Your task to perform on an android device: turn off picture-in-picture Image 0: 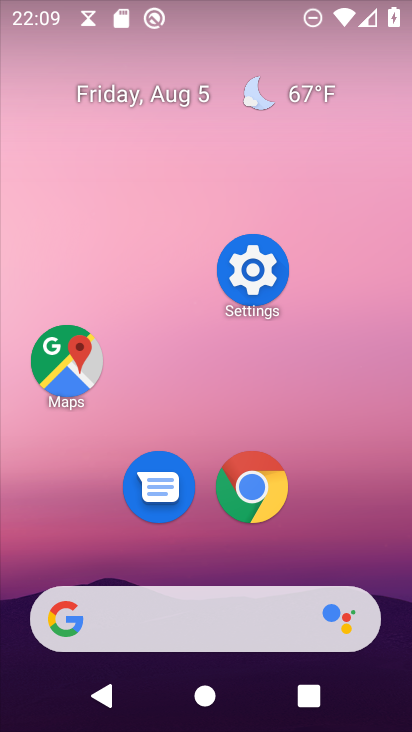
Step 0: click (252, 483)
Your task to perform on an android device: turn off picture-in-picture Image 1: 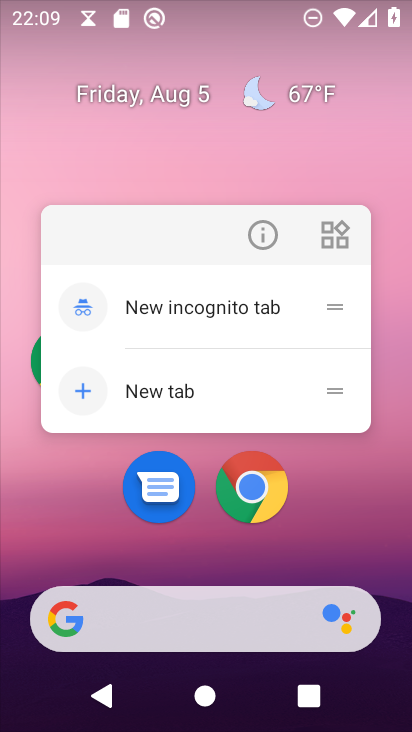
Step 1: click (268, 235)
Your task to perform on an android device: turn off picture-in-picture Image 2: 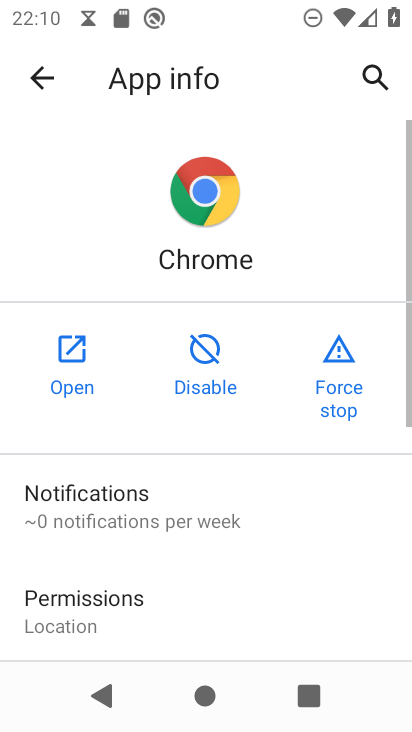
Step 2: drag from (242, 607) to (305, 83)
Your task to perform on an android device: turn off picture-in-picture Image 3: 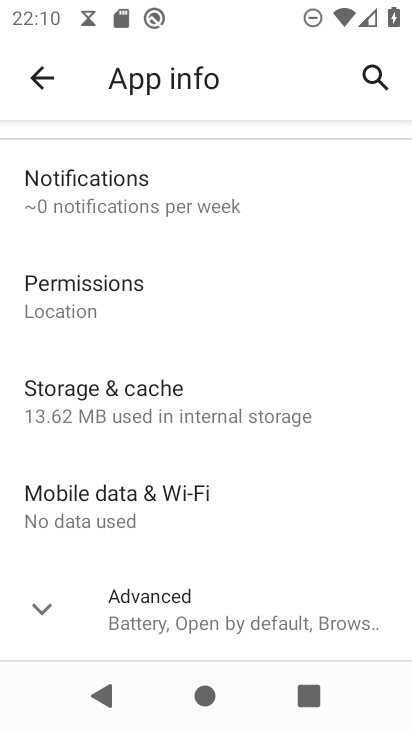
Step 3: drag from (224, 577) to (341, 42)
Your task to perform on an android device: turn off picture-in-picture Image 4: 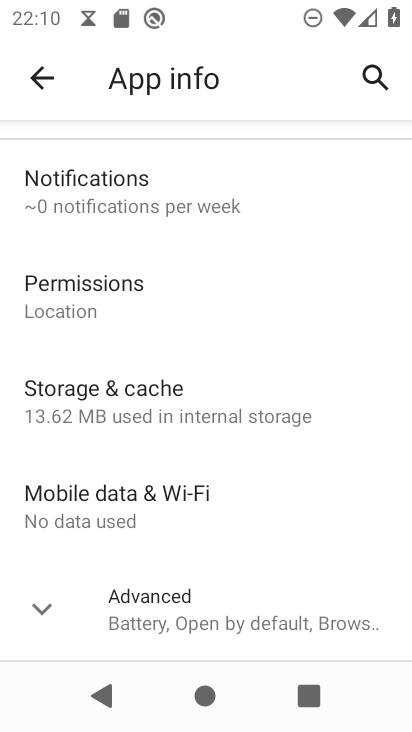
Step 4: click (145, 608)
Your task to perform on an android device: turn off picture-in-picture Image 5: 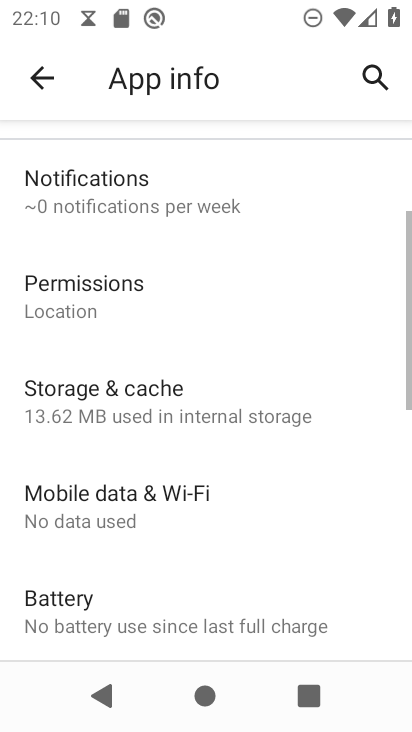
Step 5: drag from (246, 583) to (350, 37)
Your task to perform on an android device: turn off picture-in-picture Image 6: 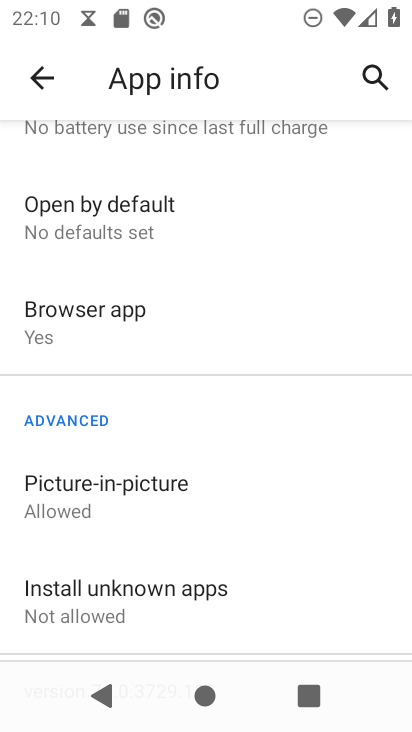
Step 6: click (106, 493)
Your task to perform on an android device: turn off picture-in-picture Image 7: 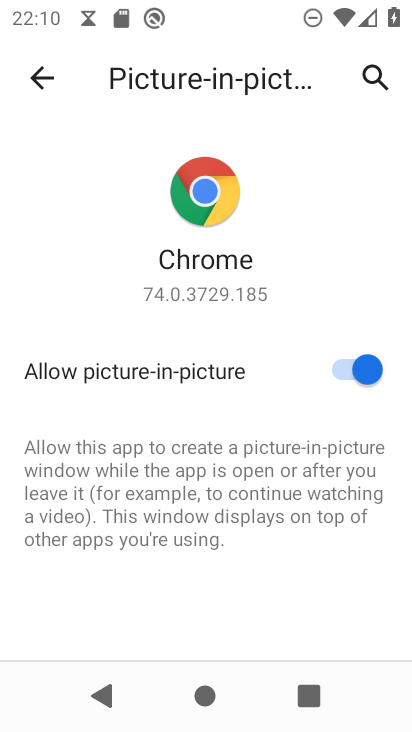
Step 7: click (346, 370)
Your task to perform on an android device: turn off picture-in-picture Image 8: 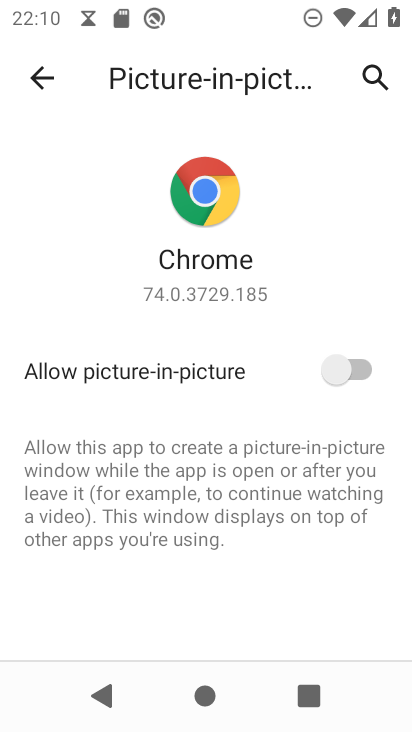
Step 8: task complete